Your task to perform on an android device: set an alarm Image 0: 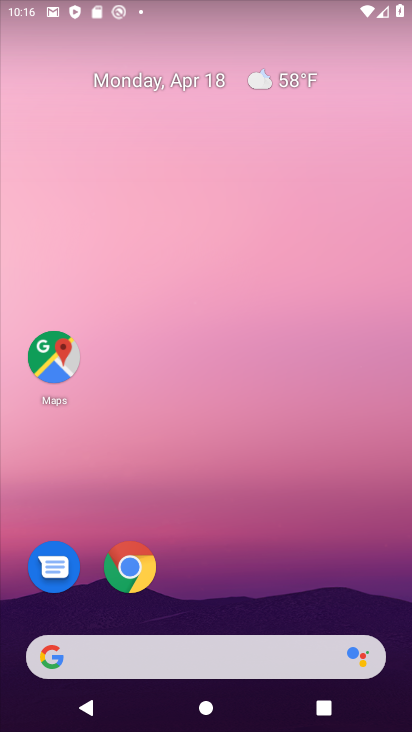
Step 0: drag from (206, 725) to (206, 62)
Your task to perform on an android device: set an alarm Image 1: 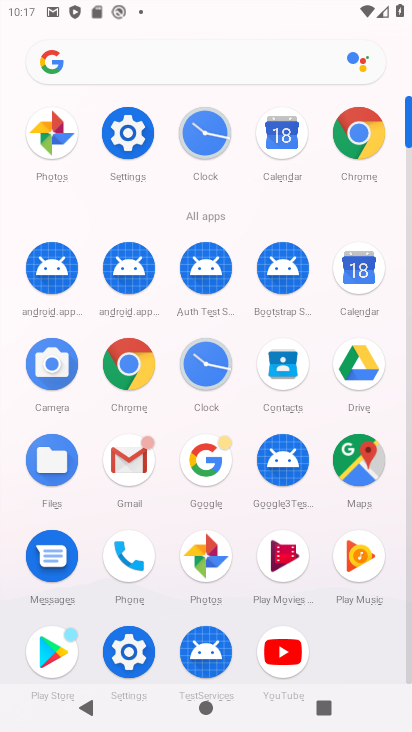
Step 1: click (203, 133)
Your task to perform on an android device: set an alarm Image 2: 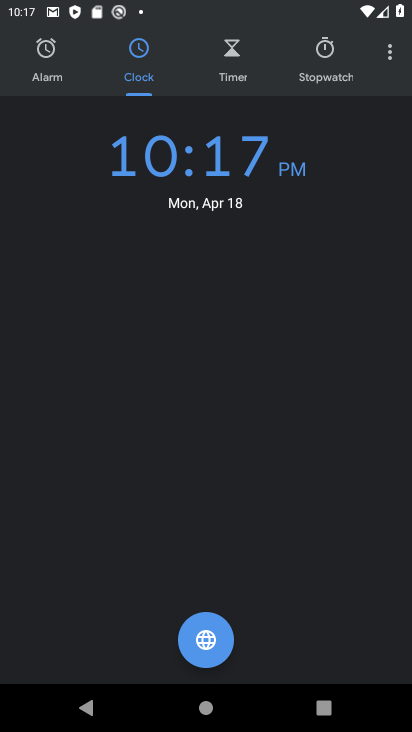
Step 2: click (47, 47)
Your task to perform on an android device: set an alarm Image 3: 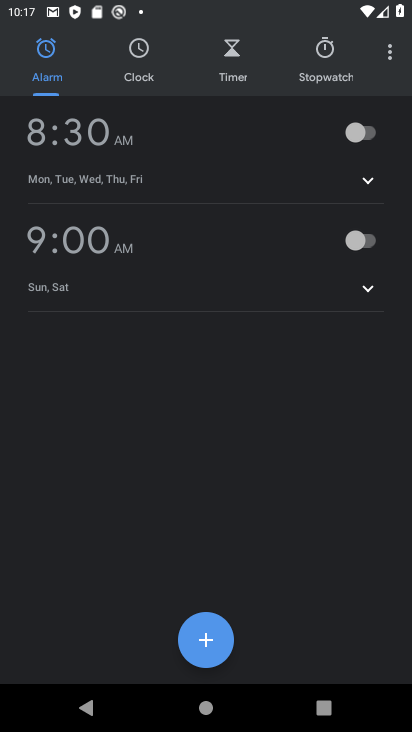
Step 3: click (204, 640)
Your task to perform on an android device: set an alarm Image 4: 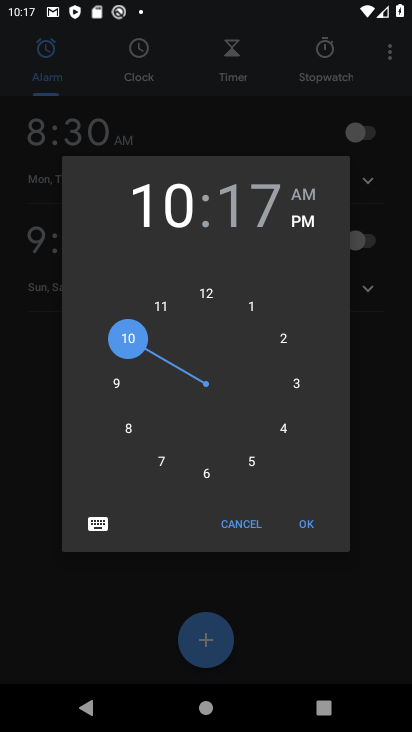
Step 4: click (249, 459)
Your task to perform on an android device: set an alarm Image 5: 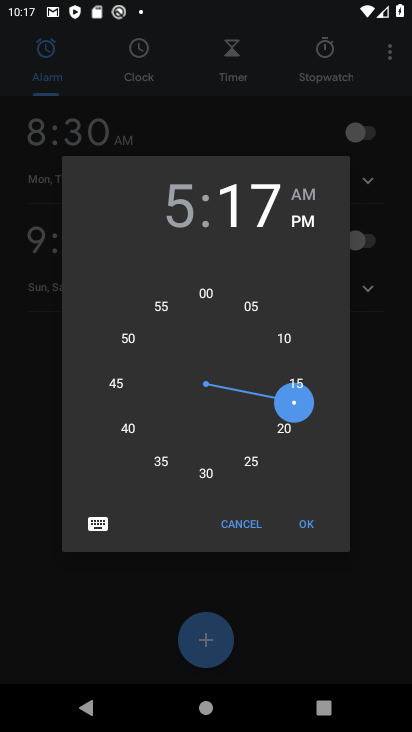
Step 5: click (305, 522)
Your task to perform on an android device: set an alarm Image 6: 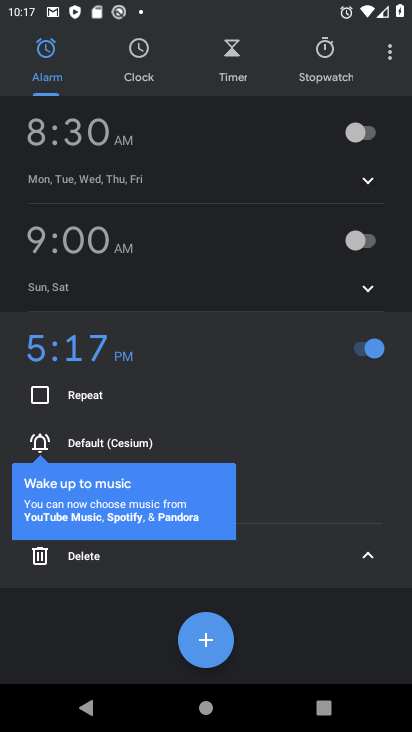
Step 6: click (40, 393)
Your task to perform on an android device: set an alarm Image 7: 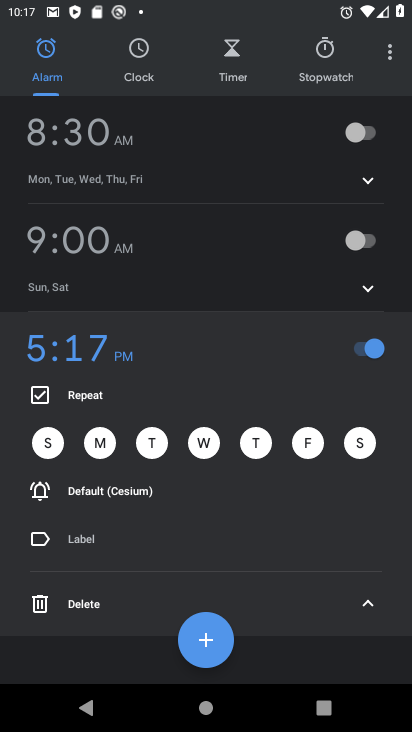
Step 7: click (152, 440)
Your task to perform on an android device: set an alarm Image 8: 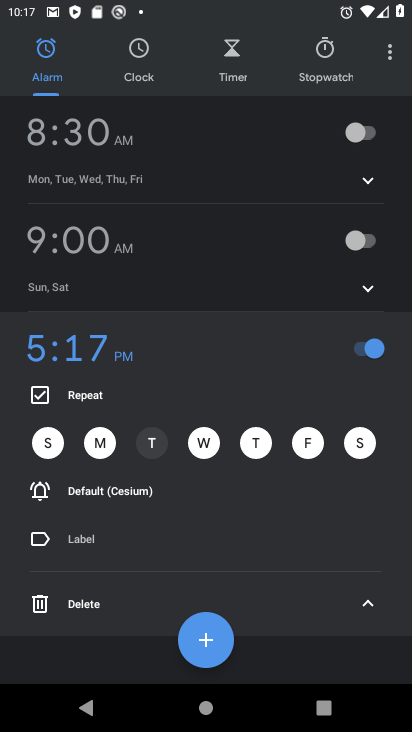
Step 8: task complete